Your task to perform on an android device: Do I have any events this weekend? Image 0: 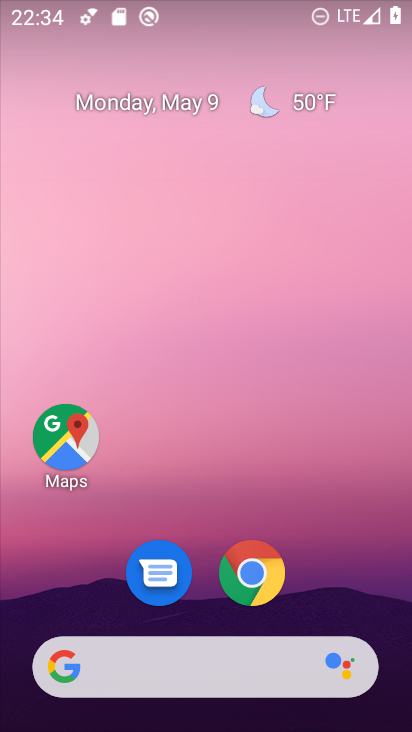
Step 0: drag from (354, 545) to (248, 150)
Your task to perform on an android device: Do I have any events this weekend? Image 1: 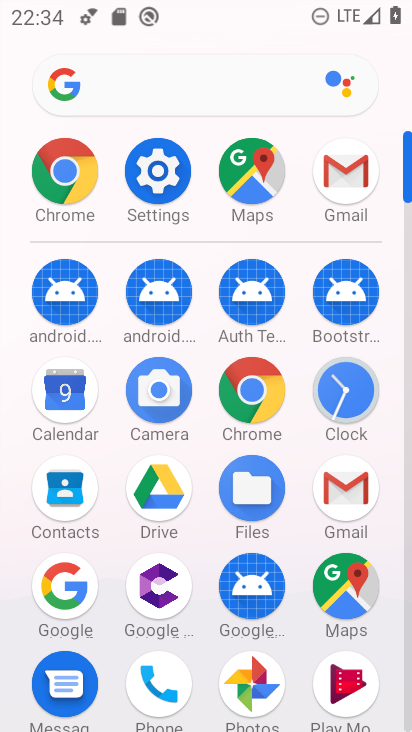
Step 1: click (79, 396)
Your task to perform on an android device: Do I have any events this weekend? Image 2: 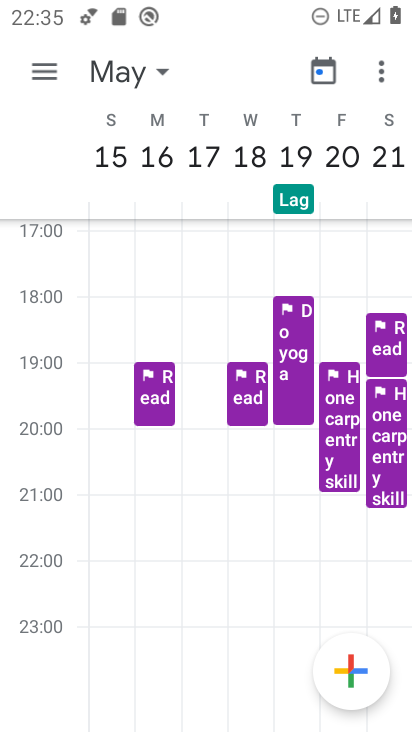
Step 2: click (114, 75)
Your task to perform on an android device: Do I have any events this weekend? Image 3: 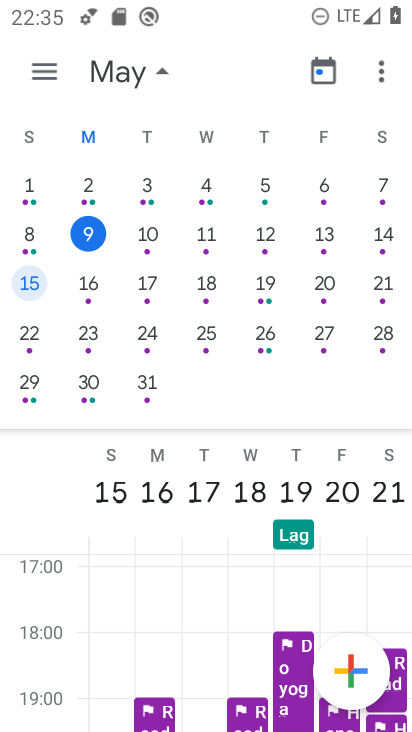
Step 3: click (92, 237)
Your task to perform on an android device: Do I have any events this weekend? Image 4: 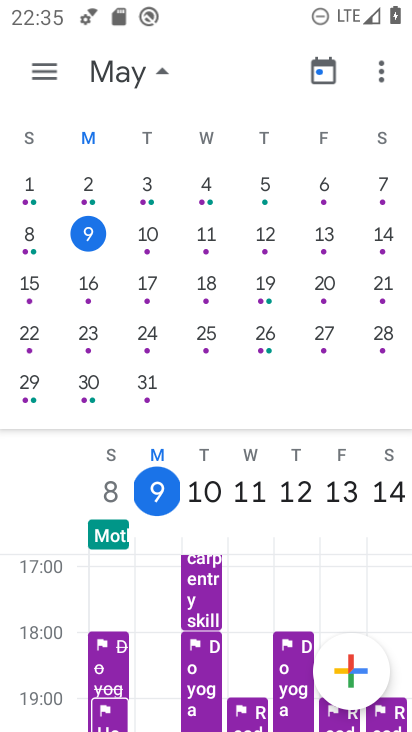
Step 4: task complete